Your task to perform on an android device: Go to Maps Image 0: 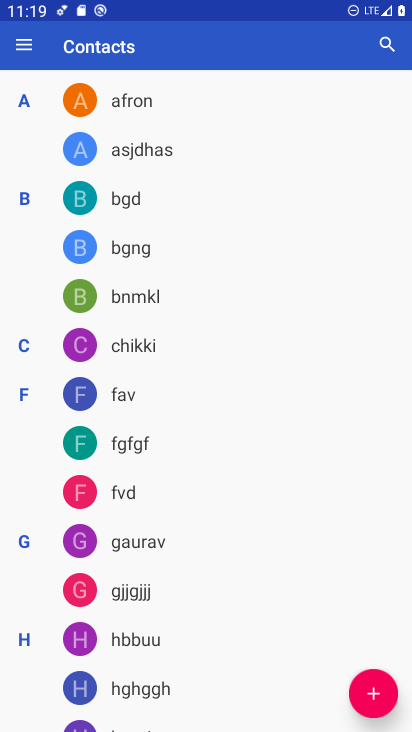
Step 0: press home button
Your task to perform on an android device: Go to Maps Image 1: 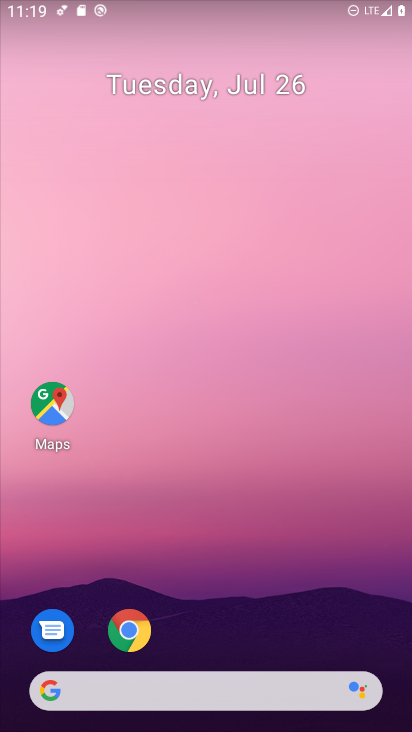
Step 1: click (55, 403)
Your task to perform on an android device: Go to Maps Image 2: 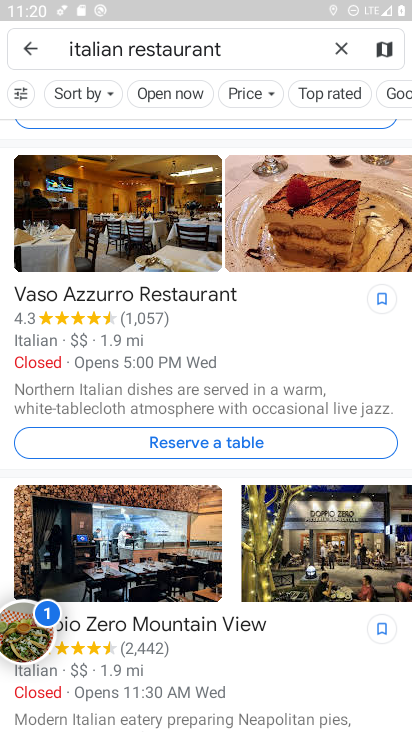
Step 2: click (339, 49)
Your task to perform on an android device: Go to Maps Image 3: 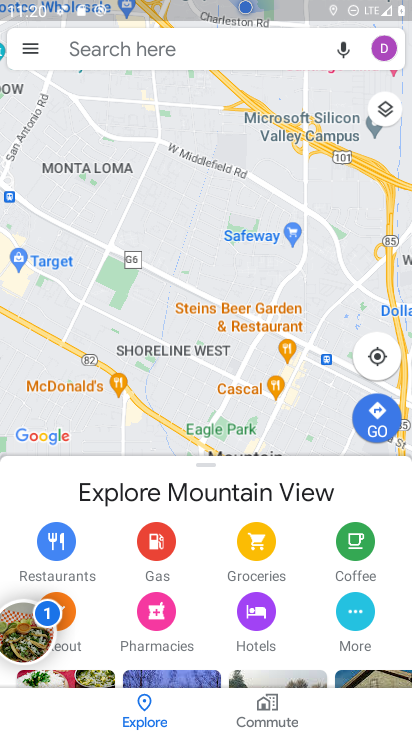
Step 3: task complete